Your task to perform on an android device: Open maps Image 0: 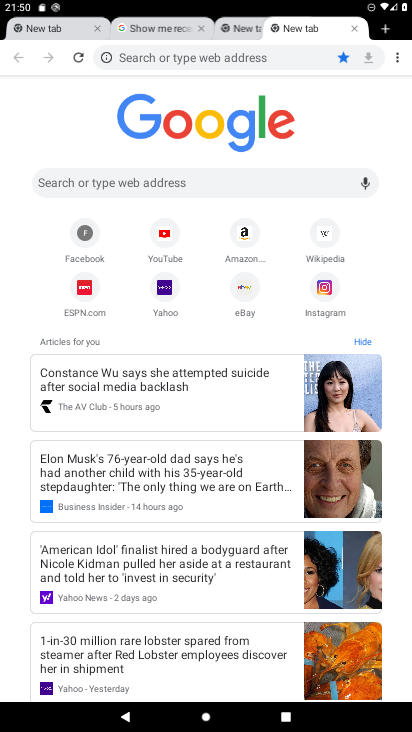
Step 0: press home button
Your task to perform on an android device: Open maps Image 1: 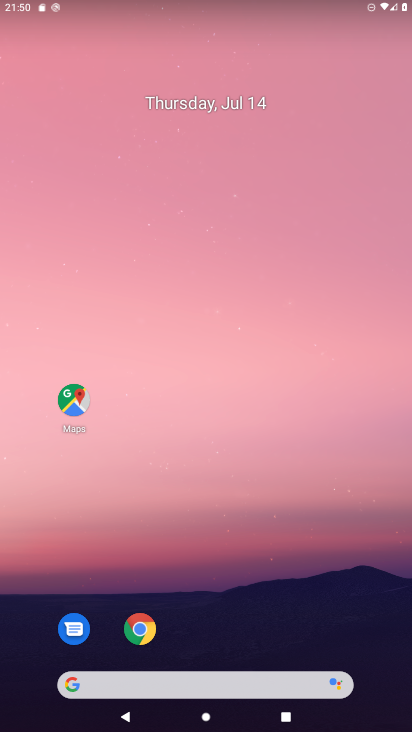
Step 1: click (79, 385)
Your task to perform on an android device: Open maps Image 2: 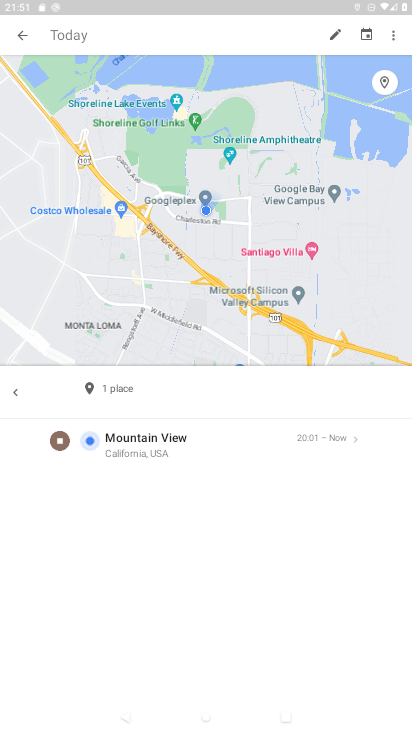
Step 2: task complete